Your task to perform on an android device: Open display settings Image 0: 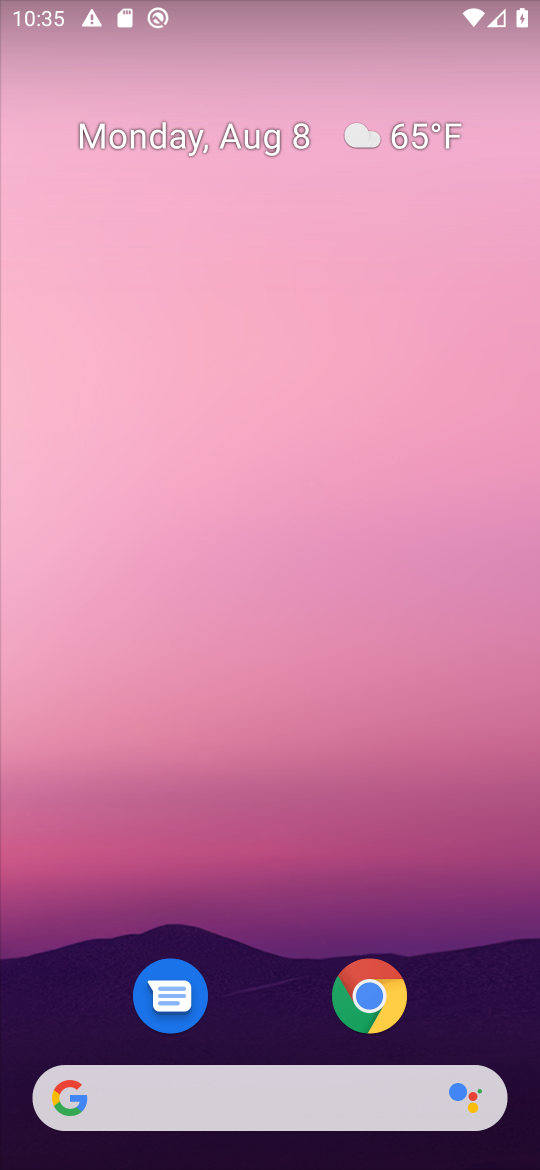
Step 0: press home button
Your task to perform on an android device: Open display settings Image 1: 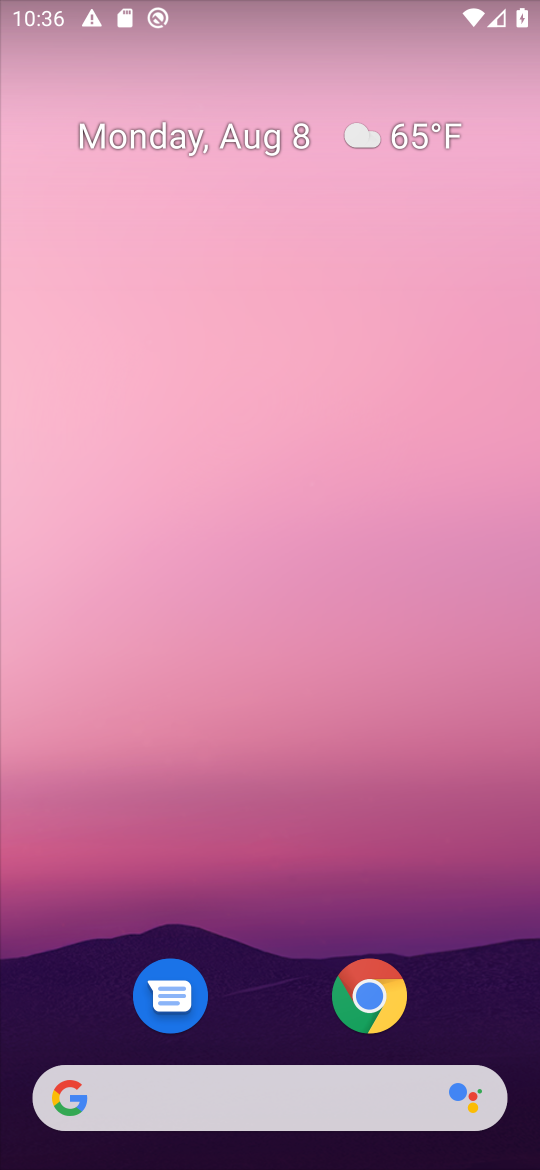
Step 1: drag from (273, 1010) to (160, 69)
Your task to perform on an android device: Open display settings Image 2: 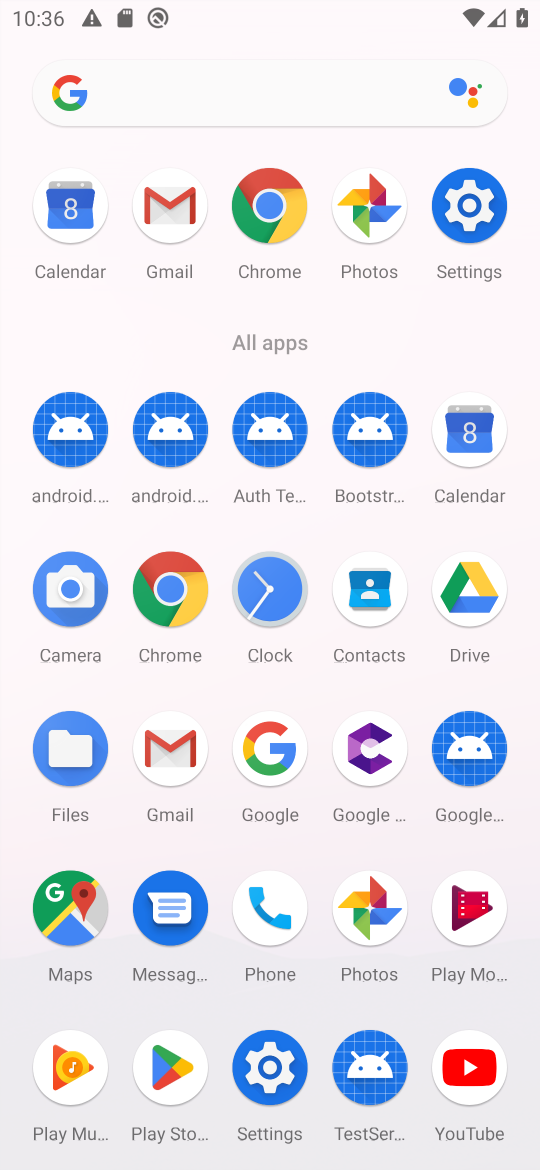
Step 2: click (470, 222)
Your task to perform on an android device: Open display settings Image 3: 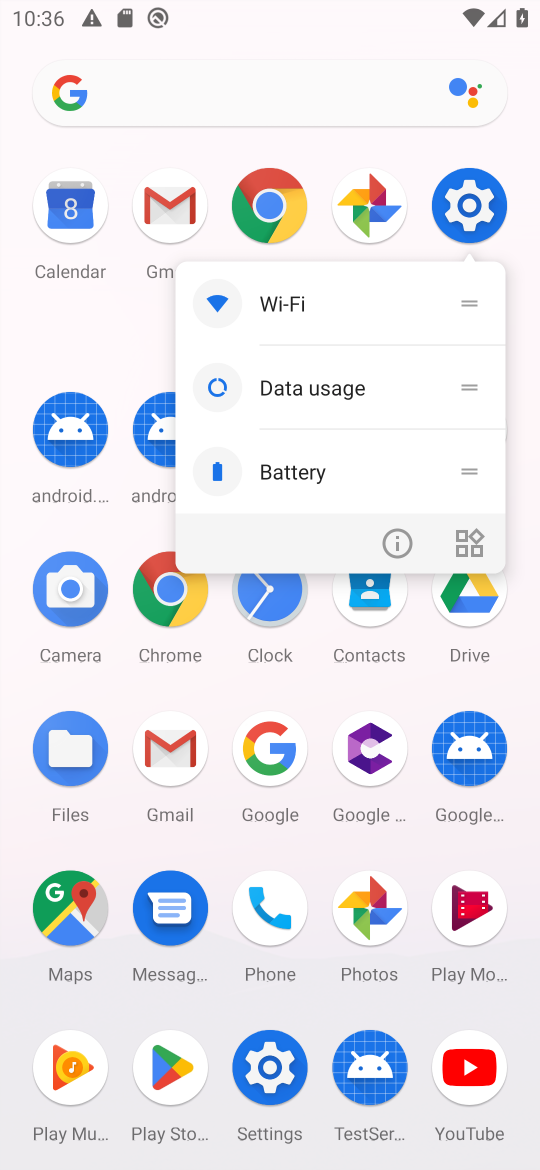
Step 3: click (470, 222)
Your task to perform on an android device: Open display settings Image 4: 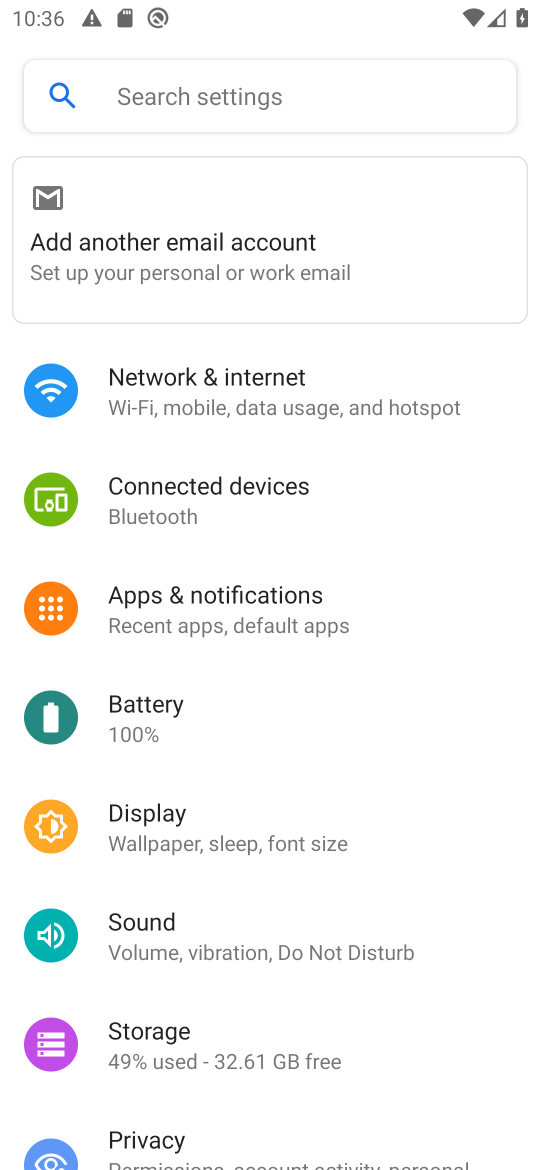
Step 4: click (150, 829)
Your task to perform on an android device: Open display settings Image 5: 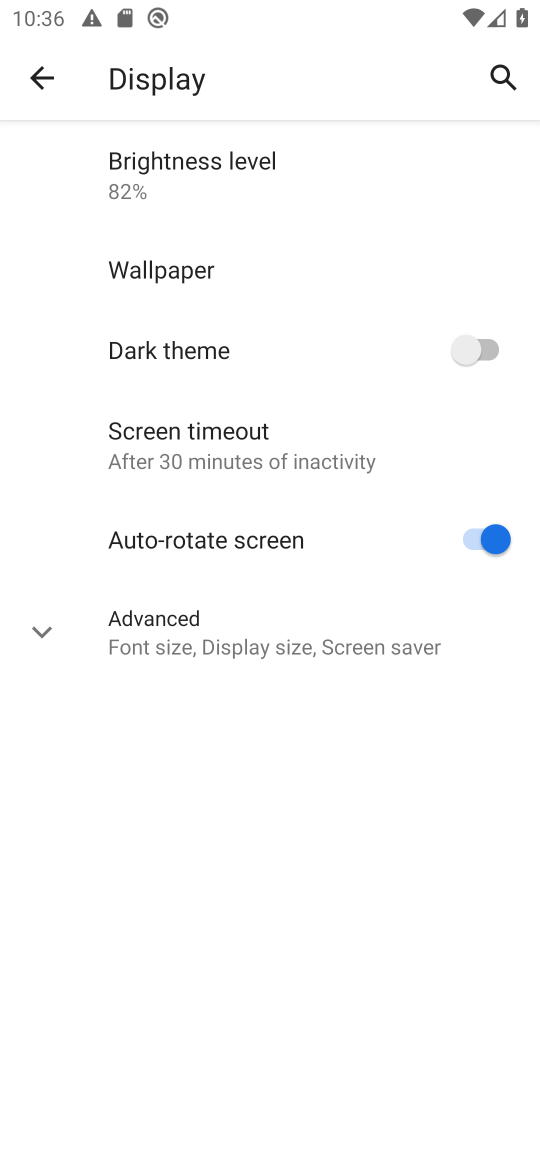
Step 5: task complete